Your task to perform on an android device: clear all cookies in the chrome app Image 0: 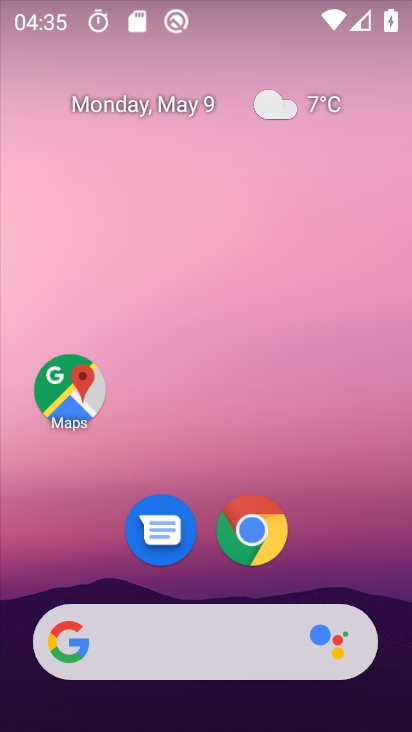
Step 0: click (236, 541)
Your task to perform on an android device: clear all cookies in the chrome app Image 1: 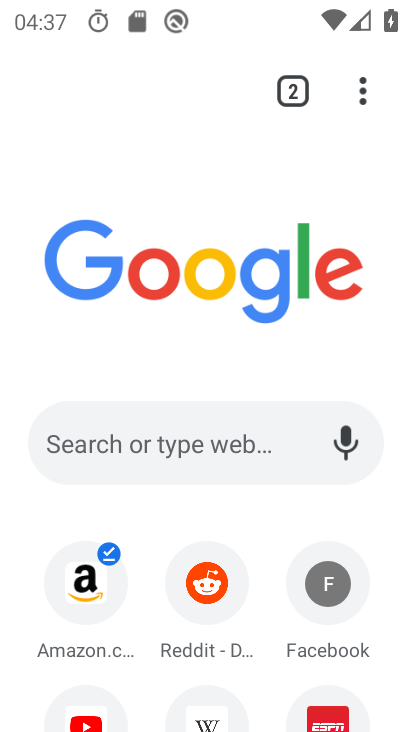
Step 1: click (353, 90)
Your task to perform on an android device: clear all cookies in the chrome app Image 2: 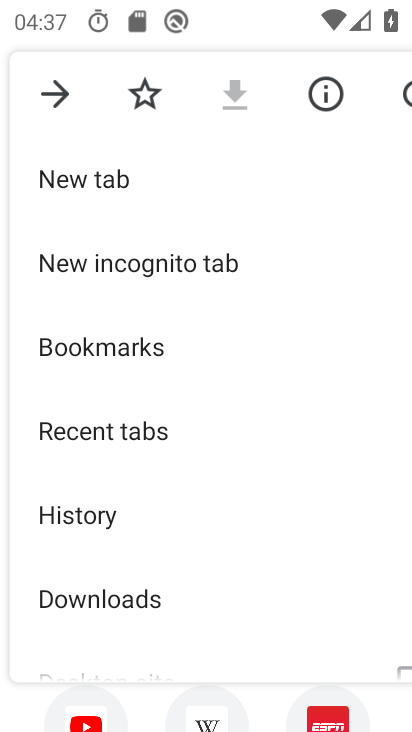
Step 2: click (125, 504)
Your task to perform on an android device: clear all cookies in the chrome app Image 3: 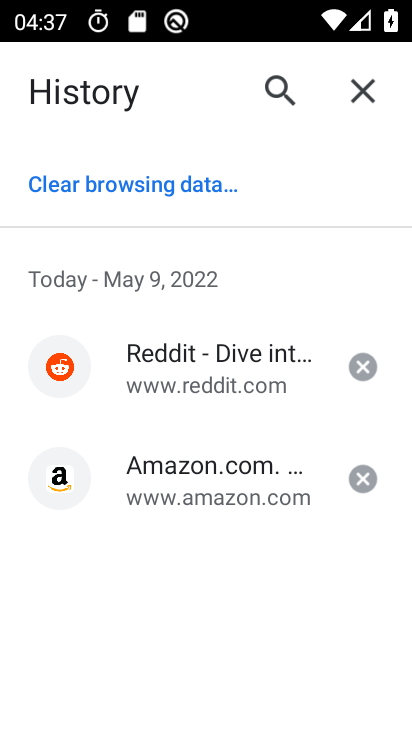
Step 3: click (151, 187)
Your task to perform on an android device: clear all cookies in the chrome app Image 4: 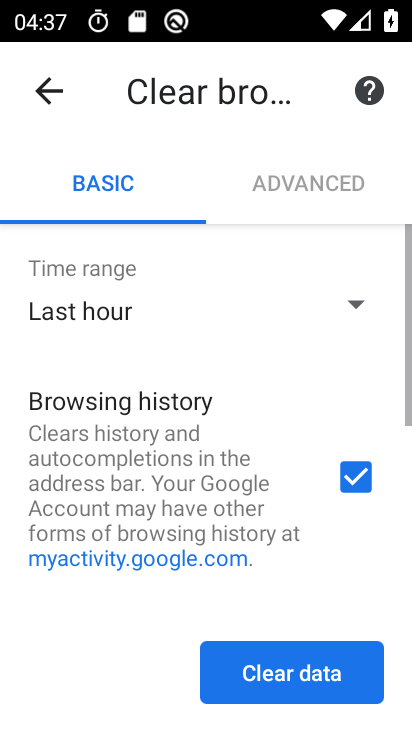
Step 4: drag from (217, 593) to (318, 159)
Your task to perform on an android device: clear all cookies in the chrome app Image 5: 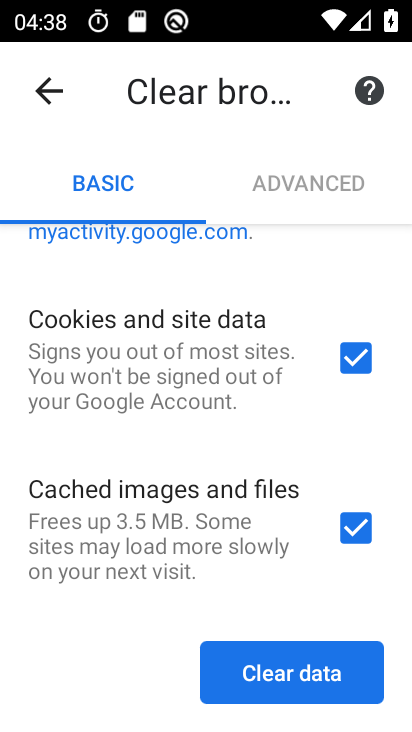
Step 5: click (256, 687)
Your task to perform on an android device: clear all cookies in the chrome app Image 6: 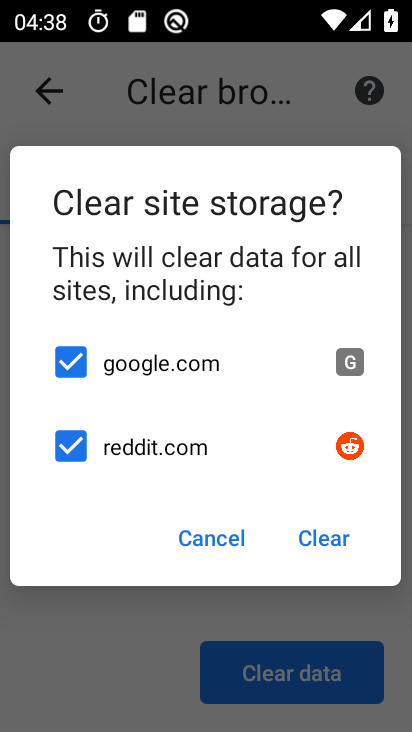
Step 6: click (314, 520)
Your task to perform on an android device: clear all cookies in the chrome app Image 7: 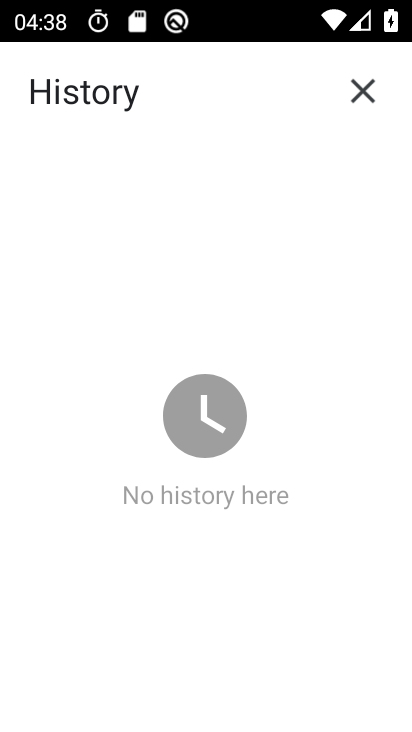
Step 7: task complete